Your task to perform on an android device: check data usage Image 0: 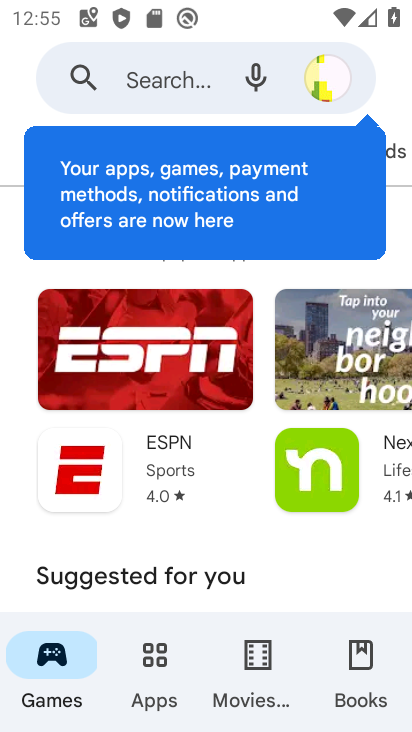
Step 0: press home button
Your task to perform on an android device: check data usage Image 1: 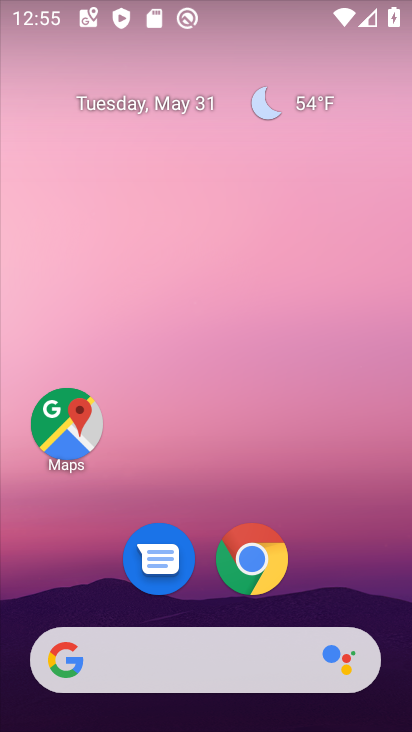
Step 1: drag from (131, 719) to (140, 64)
Your task to perform on an android device: check data usage Image 2: 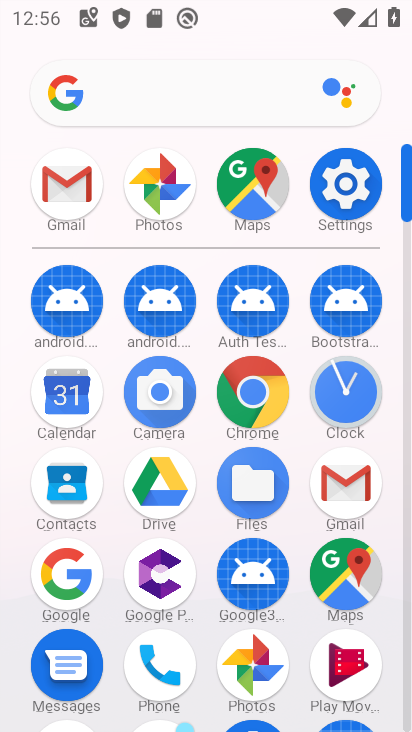
Step 2: click (354, 177)
Your task to perform on an android device: check data usage Image 3: 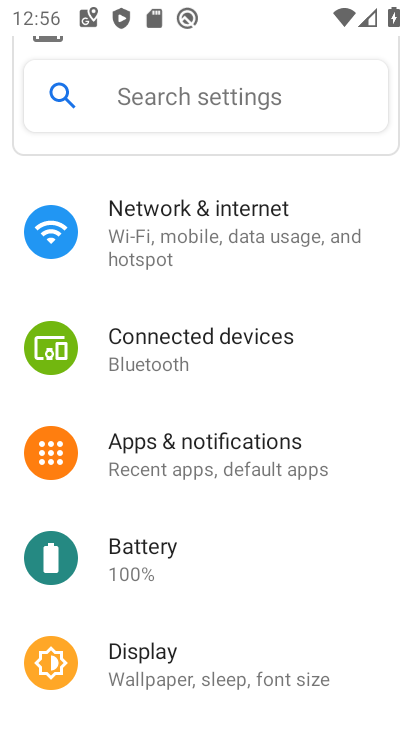
Step 3: click (222, 258)
Your task to perform on an android device: check data usage Image 4: 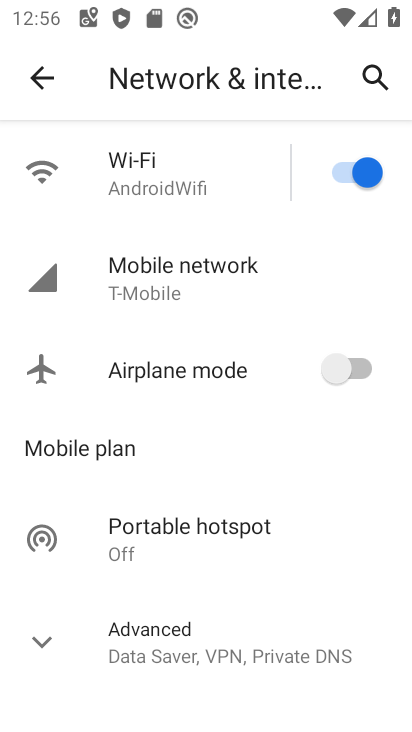
Step 4: click (216, 305)
Your task to perform on an android device: check data usage Image 5: 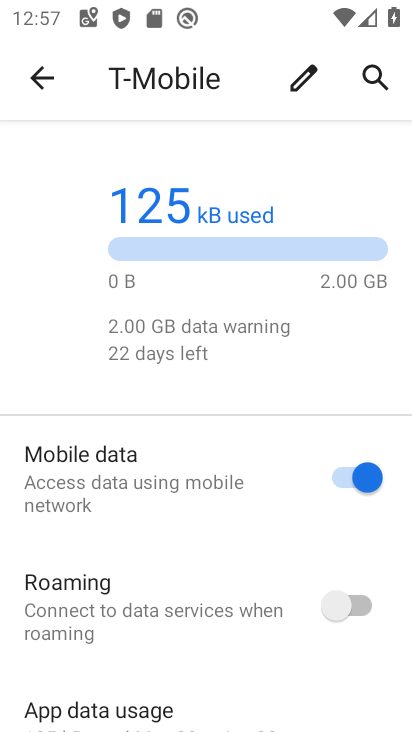
Step 5: task complete